Your task to perform on an android device: Open wifi settings Image 0: 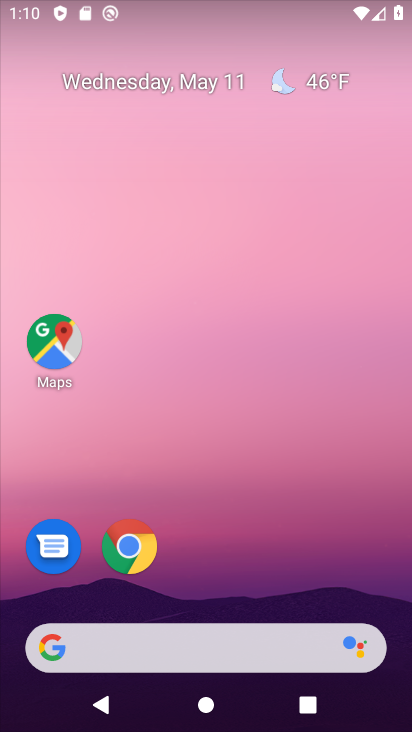
Step 0: drag from (238, 615) to (288, 108)
Your task to perform on an android device: Open wifi settings Image 1: 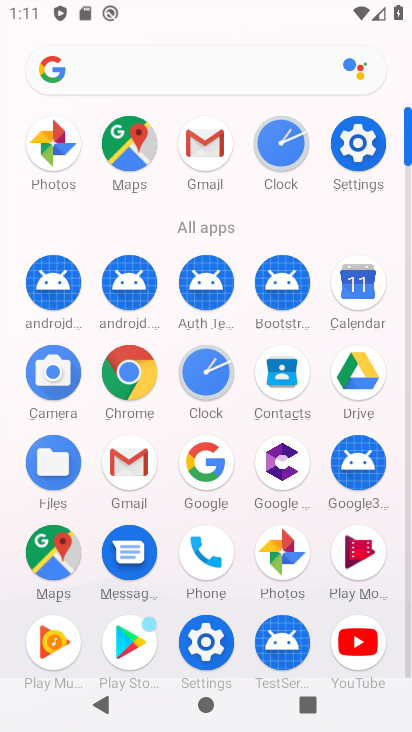
Step 1: click (354, 155)
Your task to perform on an android device: Open wifi settings Image 2: 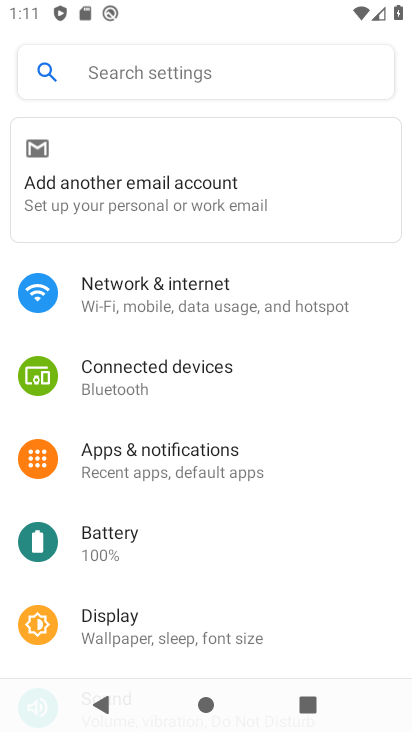
Step 2: click (150, 303)
Your task to perform on an android device: Open wifi settings Image 3: 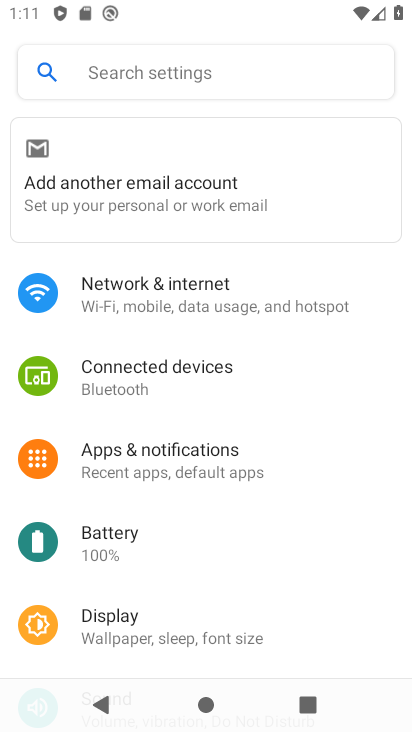
Step 3: click (150, 303)
Your task to perform on an android device: Open wifi settings Image 4: 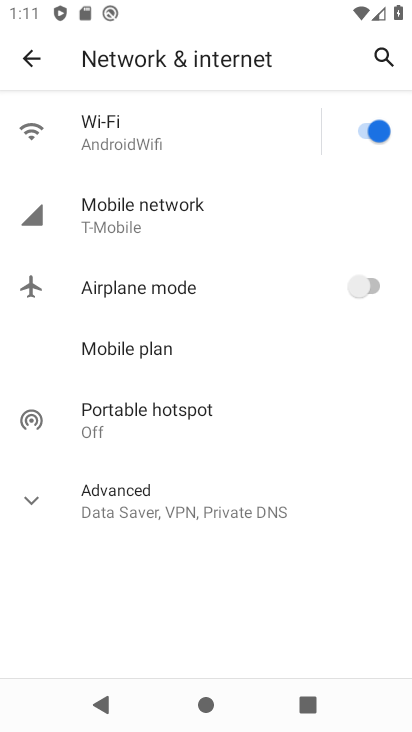
Step 4: click (181, 144)
Your task to perform on an android device: Open wifi settings Image 5: 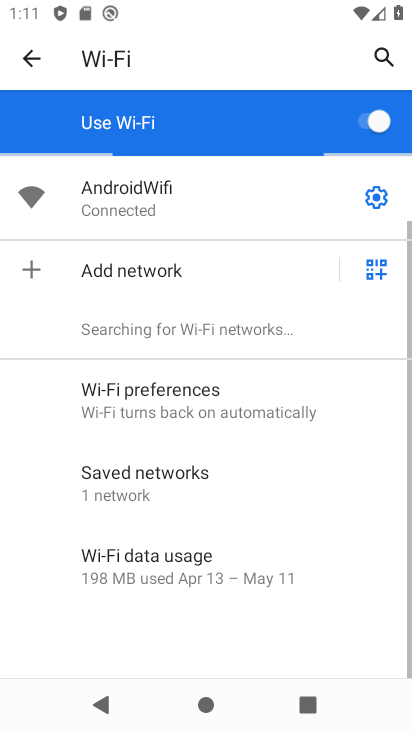
Step 5: task complete